Your task to perform on an android device: allow notifications from all sites in the chrome app Image 0: 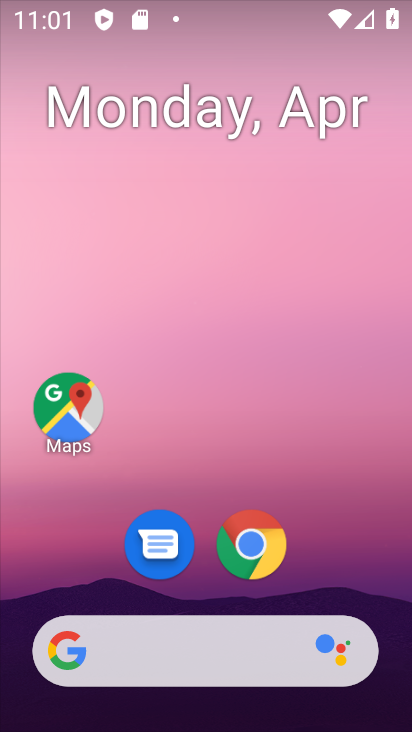
Step 0: click (253, 552)
Your task to perform on an android device: allow notifications from all sites in the chrome app Image 1: 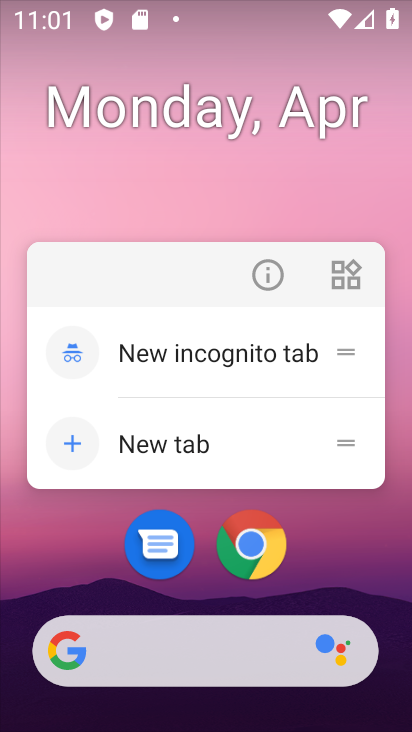
Step 1: click (253, 551)
Your task to perform on an android device: allow notifications from all sites in the chrome app Image 2: 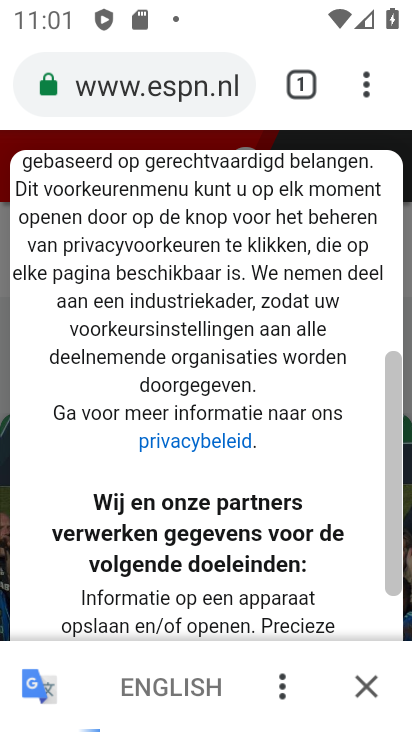
Step 2: click (364, 81)
Your task to perform on an android device: allow notifications from all sites in the chrome app Image 3: 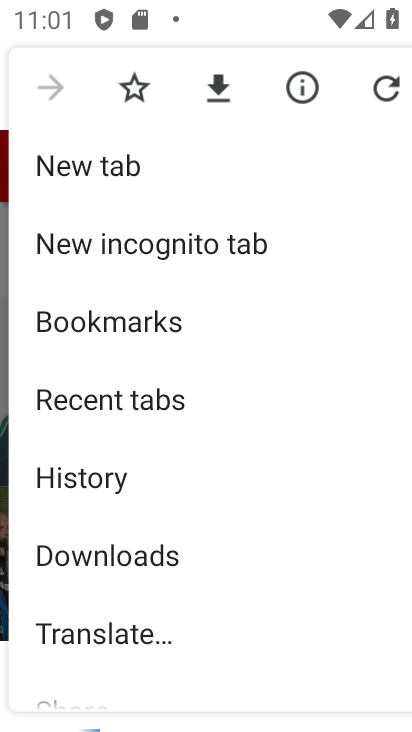
Step 3: drag from (326, 600) to (307, 247)
Your task to perform on an android device: allow notifications from all sites in the chrome app Image 4: 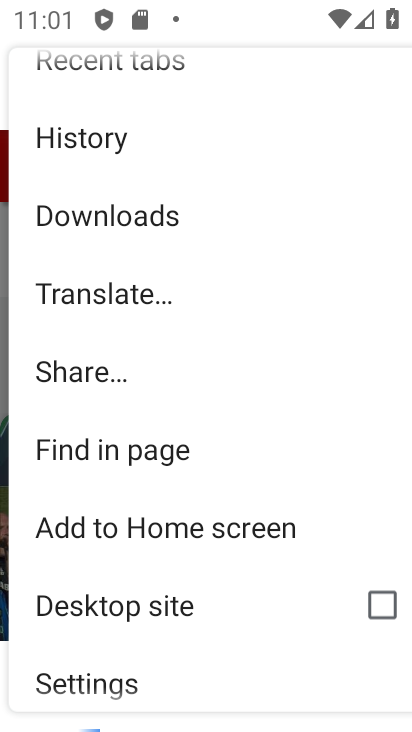
Step 4: drag from (245, 526) to (245, 225)
Your task to perform on an android device: allow notifications from all sites in the chrome app Image 5: 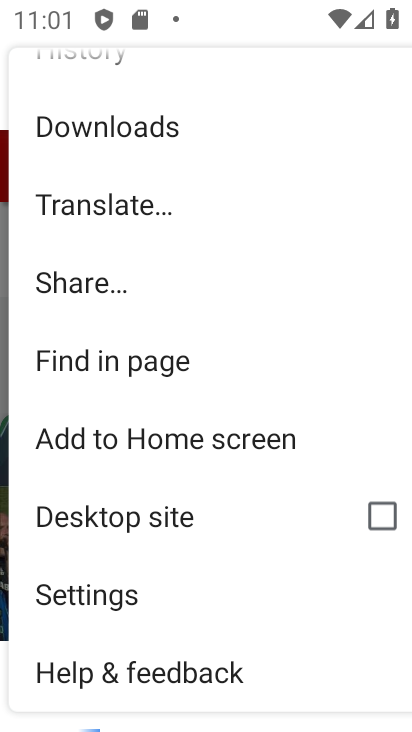
Step 5: click (86, 592)
Your task to perform on an android device: allow notifications from all sites in the chrome app Image 6: 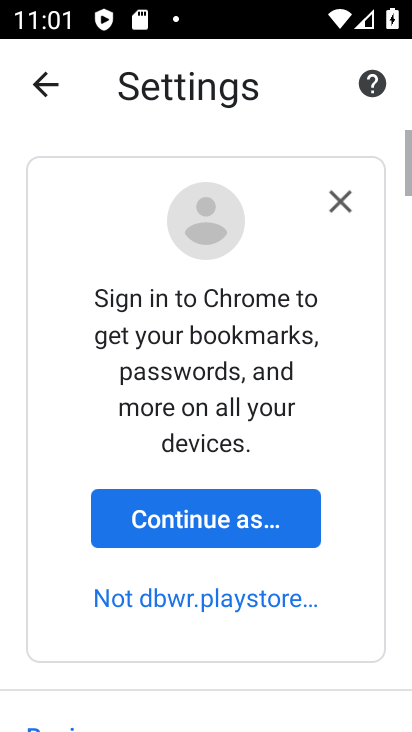
Step 6: drag from (270, 631) to (243, 149)
Your task to perform on an android device: allow notifications from all sites in the chrome app Image 7: 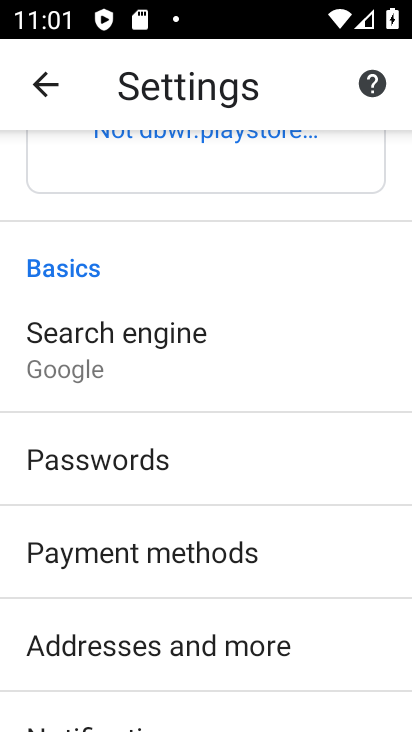
Step 7: drag from (237, 548) to (192, 164)
Your task to perform on an android device: allow notifications from all sites in the chrome app Image 8: 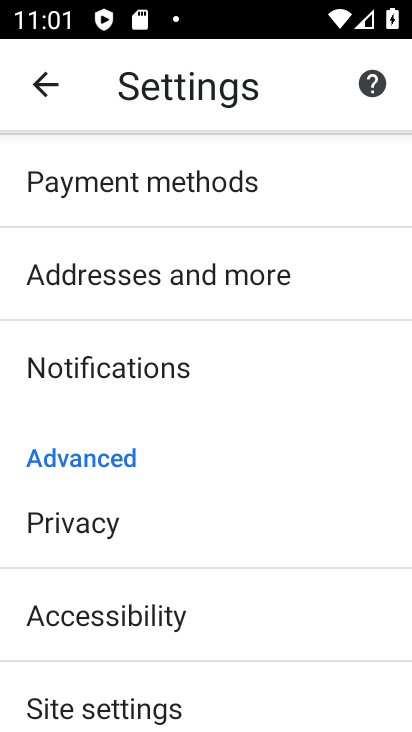
Step 8: drag from (222, 549) to (186, 179)
Your task to perform on an android device: allow notifications from all sites in the chrome app Image 9: 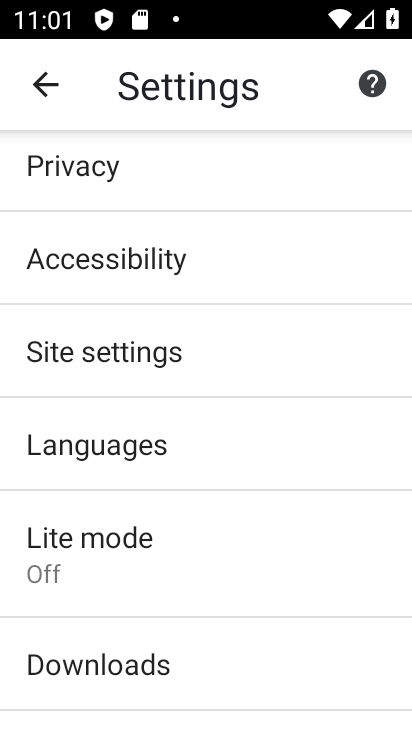
Step 9: click (77, 358)
Your task to perform on an android device: allow notifications from all sites in the chrome app Image 10: 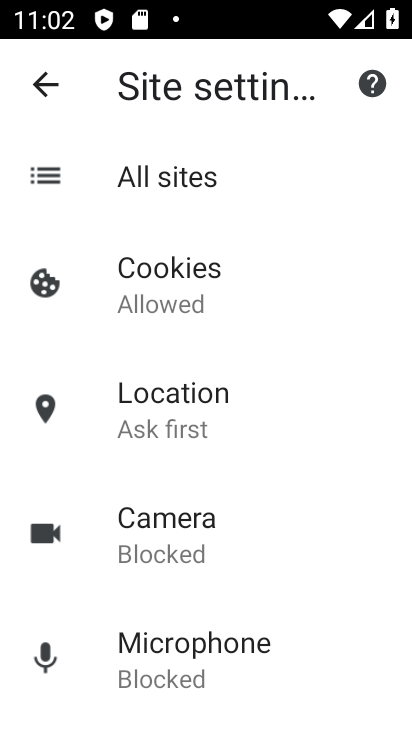
Step 10: drag from (348, 638) to (335, 290)
Your task to perform on an android device: allow notifications from all sites in the chrome app Image 11: 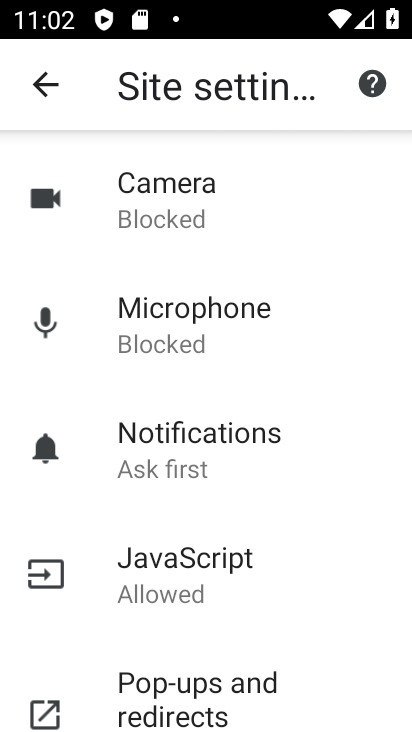
Step 11: click (174, 437)
Your task to perform on an android device: allow notifications from all sites in the chrome app Image 12: 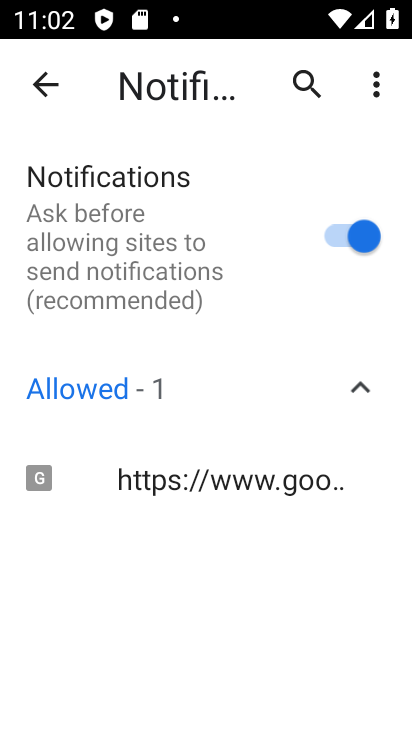
Step 12: click (353, 392)
Your task to perform on an android device: allow notifications from all sites in the chrome app Image 13: 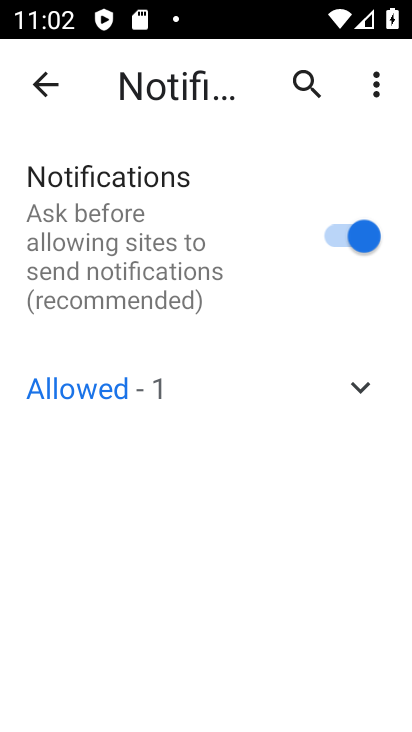
Step 13: click (353, 392)
Your task to perform on an android device: allow notifications from all sites in the chrome app Image 14: 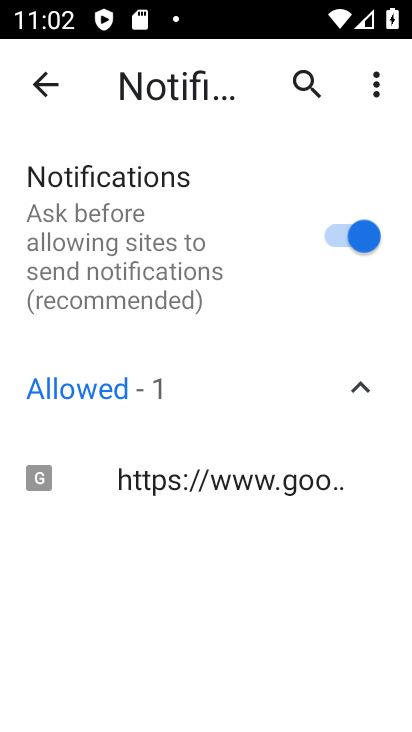
Step 14: task complete